Your task to perform on an android device: Open Google Image 0: 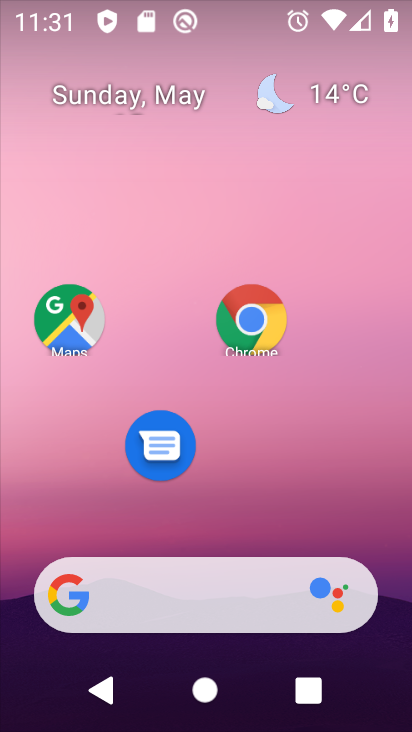
Step 0: press home button
Your task to perform on an android device: Open Google Image 1: 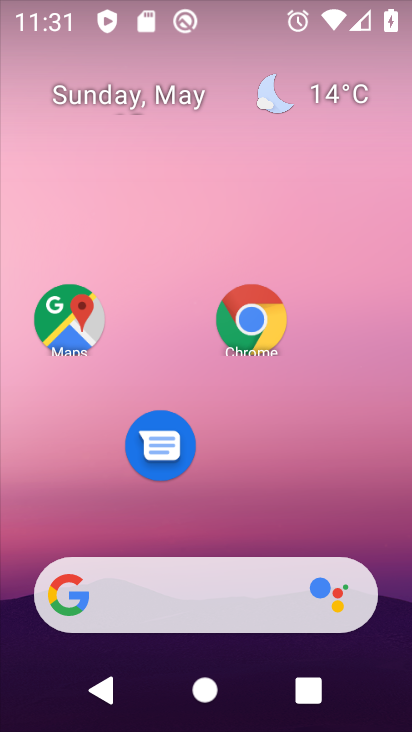
Step 1: drag from (155, 602) to (320, 133)
Your task to perform on an android device: Open Google Image 2: 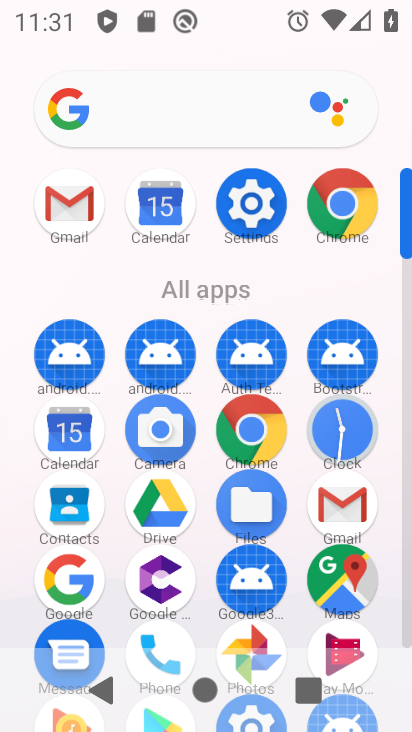
Step 2: click (78, 584)
Your task to perform on an android device: Open Google Image 3: 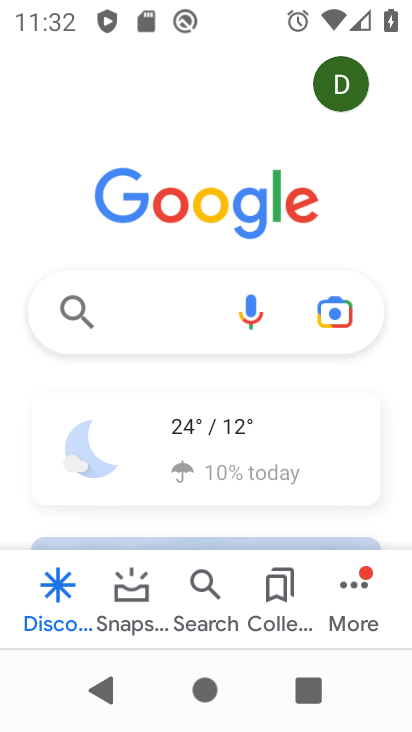
Step 3: task complete